Your task to perform on an android device: change the clock display to digital Image 0: 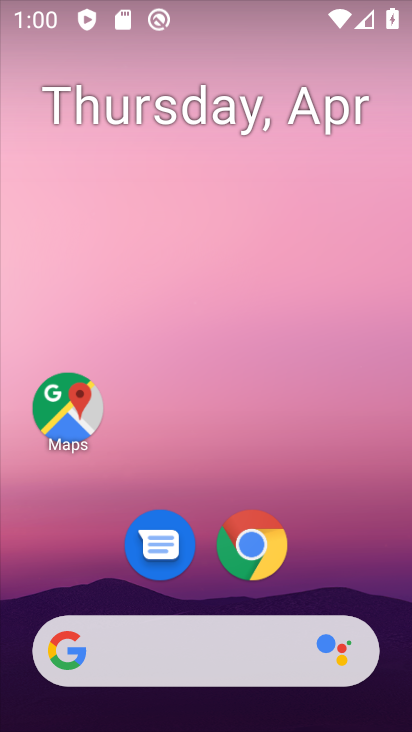
Step 0: drag from (167, 643) to (271, 76)
Your task to perform on an android device: change the clock display to digital Image 1: 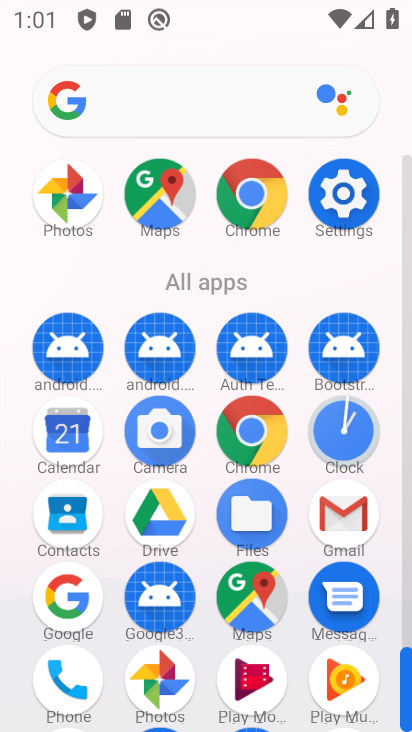
Step 1: click (335, 427)
Your task to perform on an android device: change the clock display to digital Image 2: 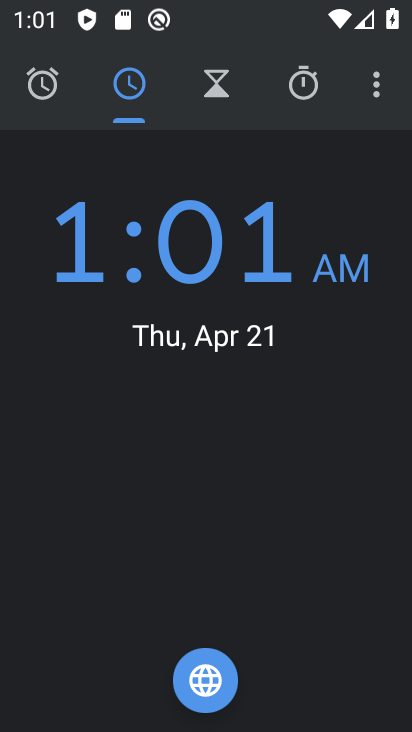
Step 2: click (377, 91)
Your task to perform on an android device: change the clock display to digital Image 3: 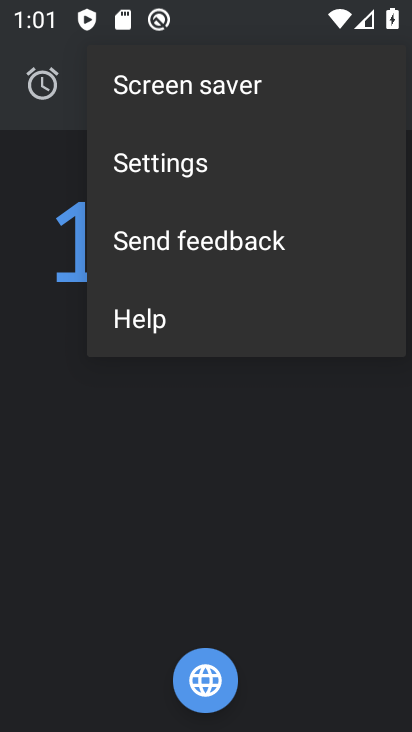
Step 3: click (190, 167)
Your task to perform on an android device: change the clock display to digital Image 4: 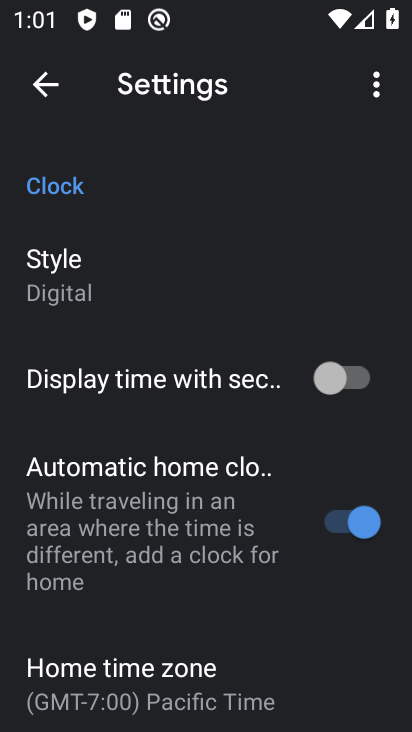
Step 4: task complete